Your task to perform on an android device: Open Android settings Image 0: 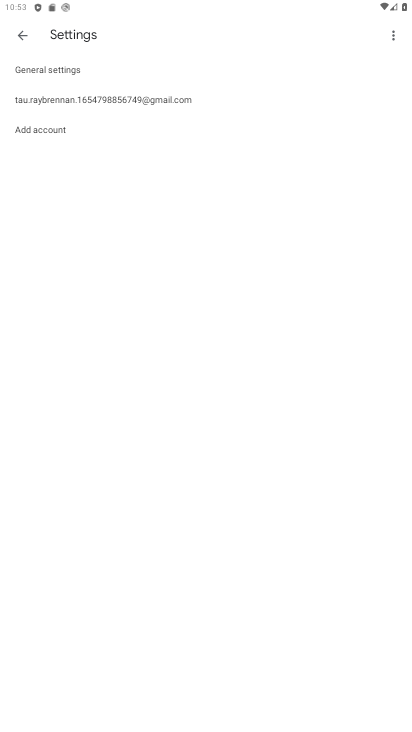
Step 0: press home button
Your task to perform on an android device: Open Android settings Image 1: 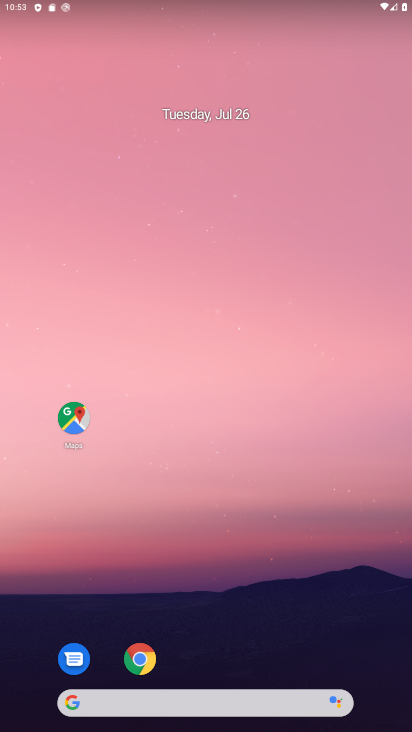
Step 1: drag from (170, 702) to (288, 101)
Your task to perform on an android device: Open Android settings Image 2: 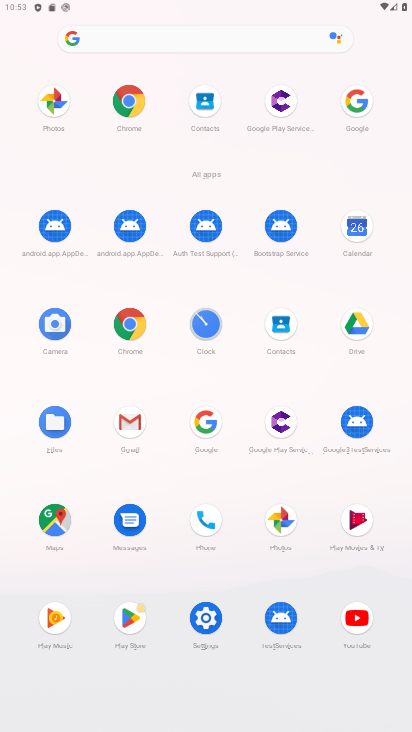
Step 2: click (203, 618)
Your task to perform on an android device: Open Android settings Image 3: 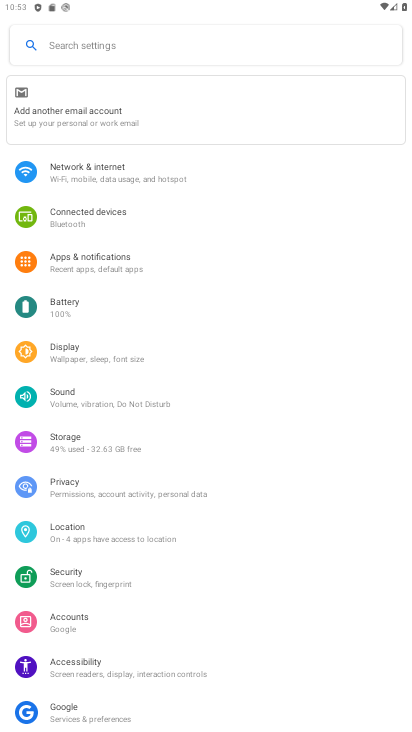
Step 3: task complete